Your task to perform on an android device: What's on my calendar today? Image 0: 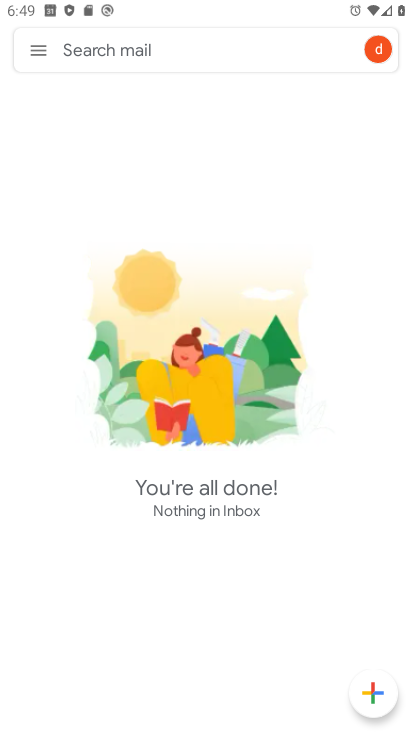
Step 0: press home button
Your task to perform on an android device: What's on my calendar today? Image 1: 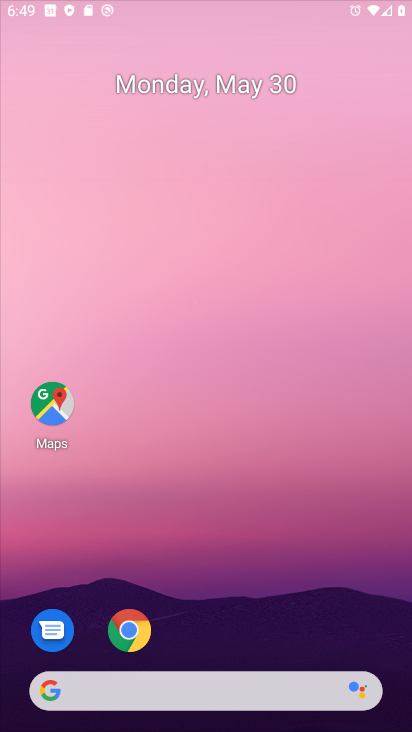
Step 1: drag from (330, 618) to (257, 30)
Your task to perform on an android device: What's on my calendar today? Image 2: 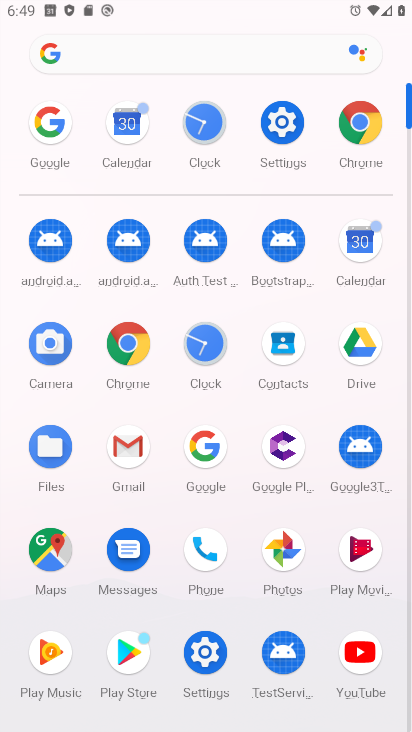
Step 2: click (384, 235)
Your task to perform on an android device: What's on my calendar today? Image 3: 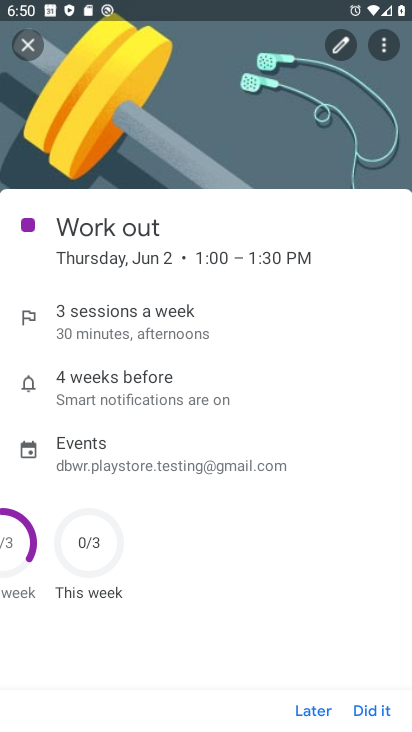
Step 3: press back button
Your task to perform on an android device: What's on my calendar today? Image 4: 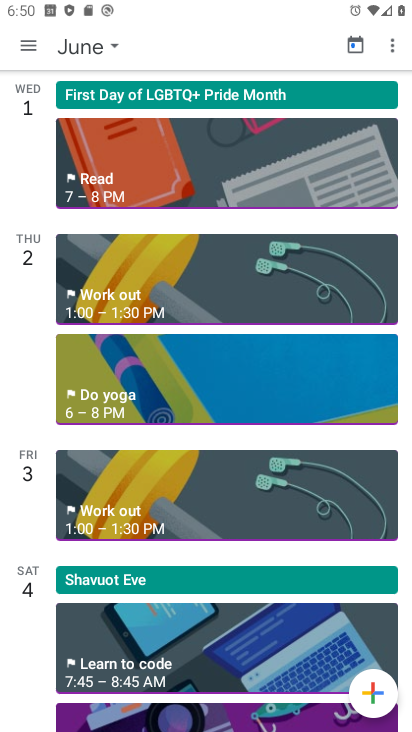
Step 4: click (84, 50)
Your task to perform on an android device: What's on my calendar today? Image 5: 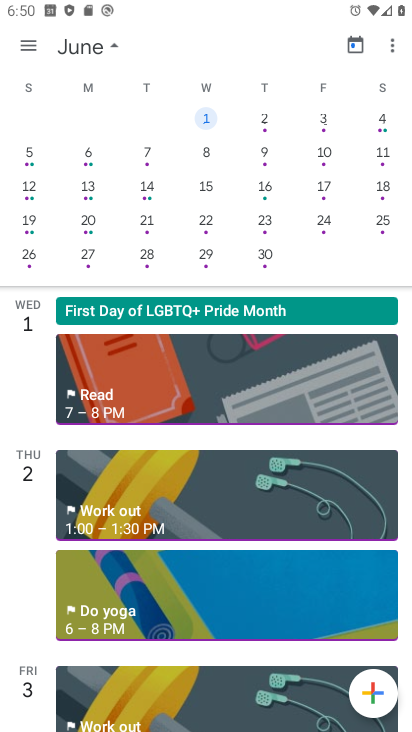
Step 5: drag from (30, 187) to (393, 174)
Your task to perform on an android device: What's on my calendar today? Image 6: 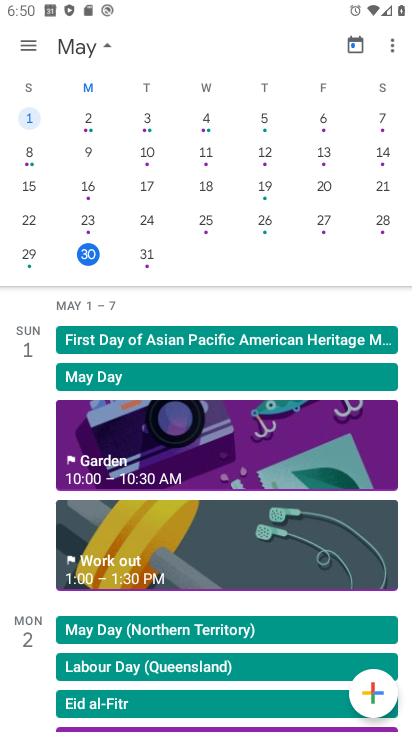
Step 6: click (148, 256)
Your task to perform on an android device: What's on my calendar today? Image 7: 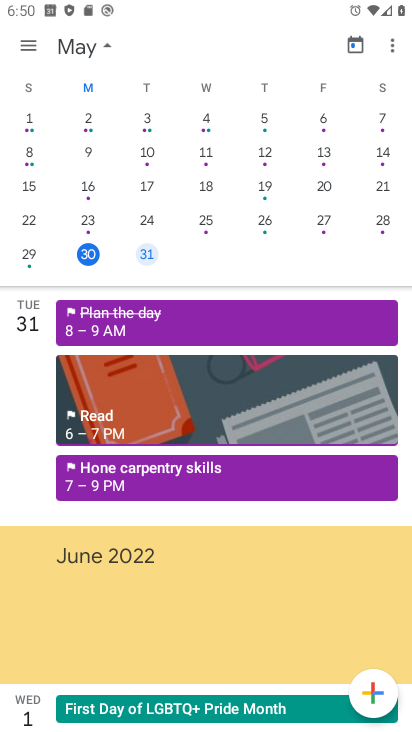
Step 7: click (187, 480)
Your task to perform on an android device: What's on my calendar today? Image 8: 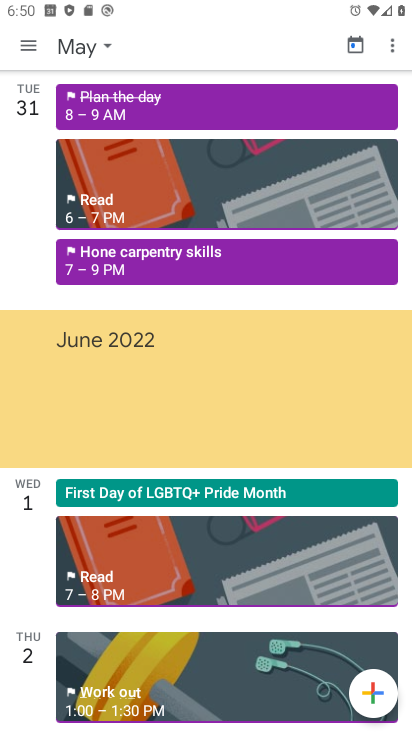
Step 8: click (208, 257)
Your task to perform on an android device: What's on my calendar today? Image 9: 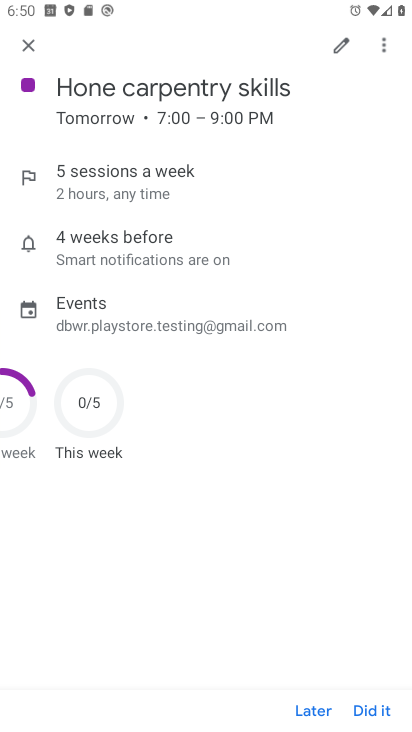
Step 9: task complete